Your task to perform on an android device: Open Amazon Image 0: 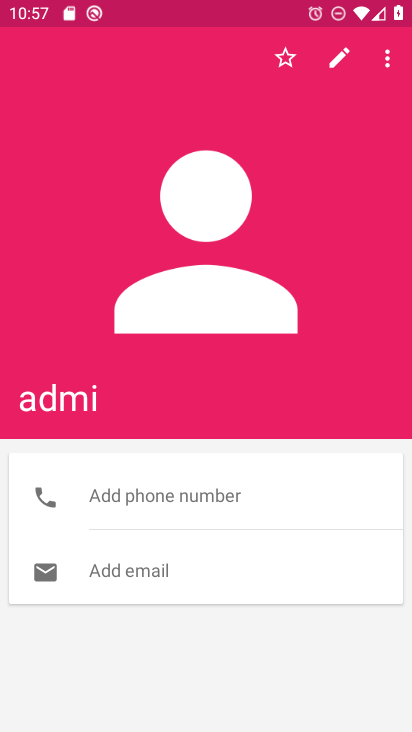
Step 0: press home button
Your task to perform on an android device: Open Amazon Image 1: 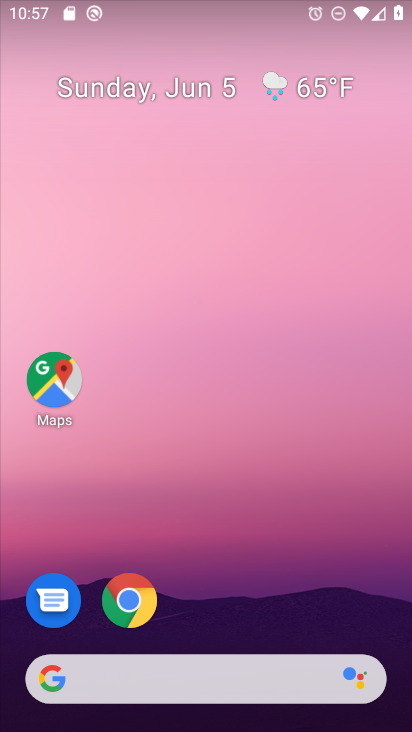
Step 1: click (391, 636)
Your task to perform on an android device: Open Amazon Image 2: 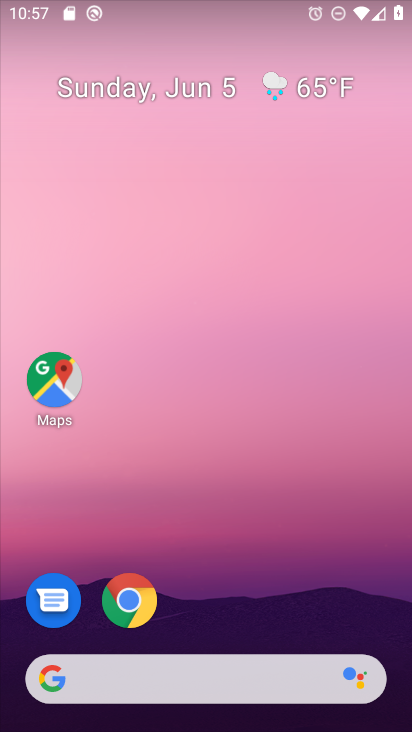
Step 2: drag from (390, 517) to (259, 106)
Your task to perform on an android device: Open Amazon Image 3: 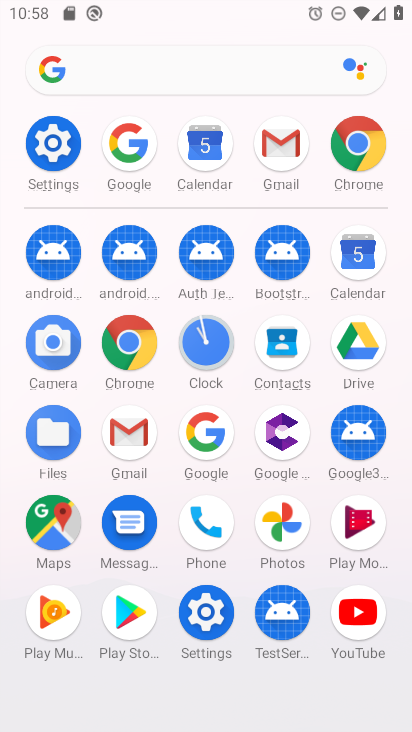
Step 3: click (224, 426)
Your task to perform on an android device: Open Amazon Image 4: 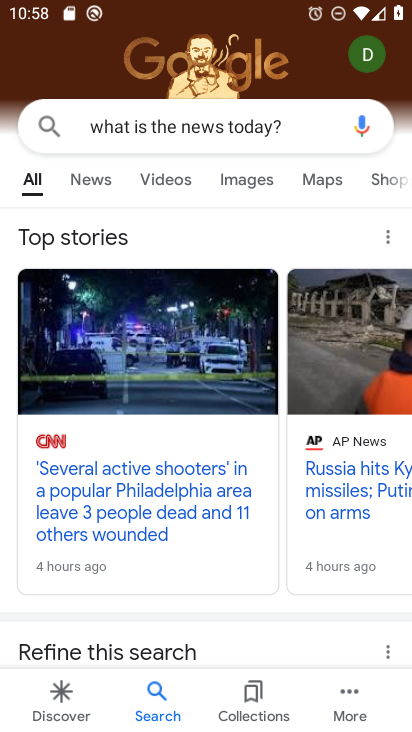
Step 4: press back button
Your task to perform on an android device: Open Amazon Image 5: 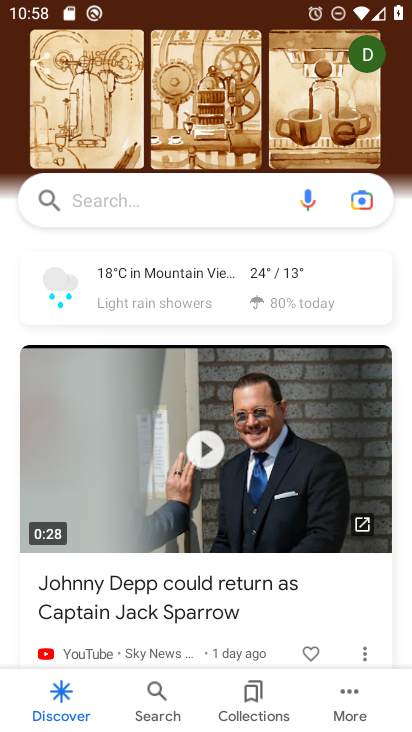
Step 5: click (117, 214)
Your task to perform on an android device: Open Amazon Image 6: 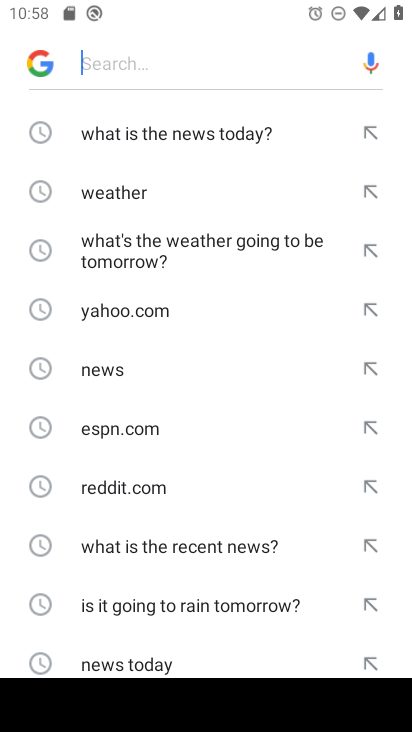
Step 6: drag from (172, 642) to (232, 445)
Your task to perform on an android device: Open Amazon Image 7: 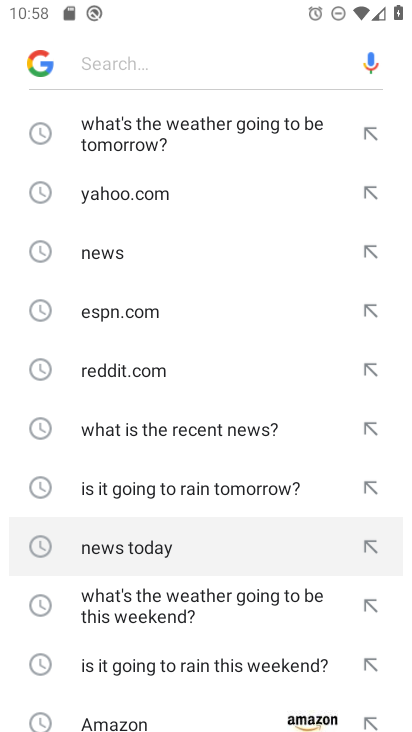
Step 7: drag from (236, 340) to (219, 212)
Your task to perform on an android device: Open Amazon Image 8: 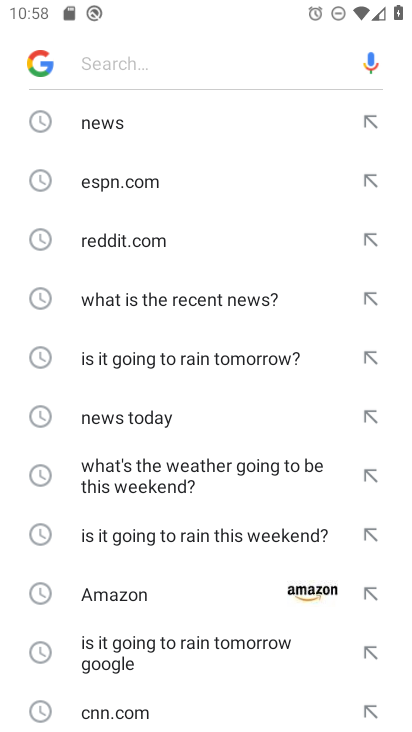
Step 8: click (136, 588)
Your task to perform on an android device: Open Amazon Image 9: 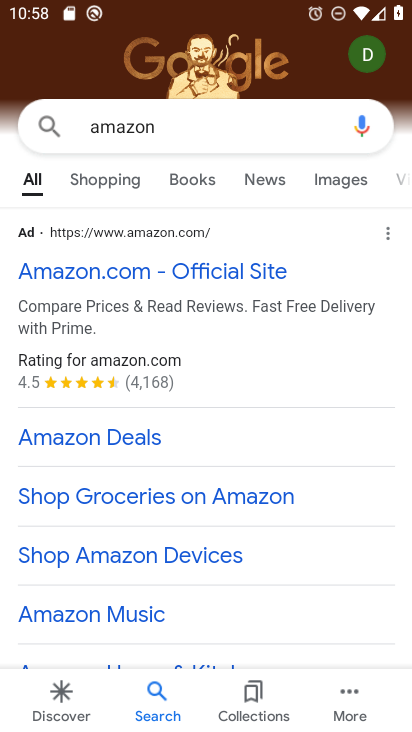
Step 9: task complete